Your task to perform on an android device: Open Chrome and go to settings Image 0: 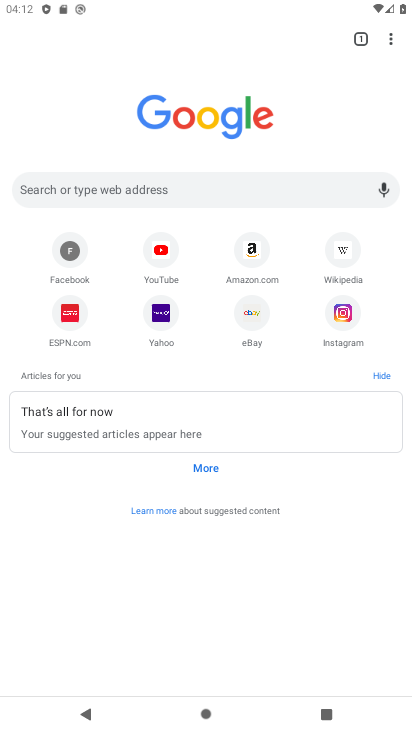
Step 0: click (391, 36)
Your task to perform on an android device: Open Chrome and go to settings Image 1: 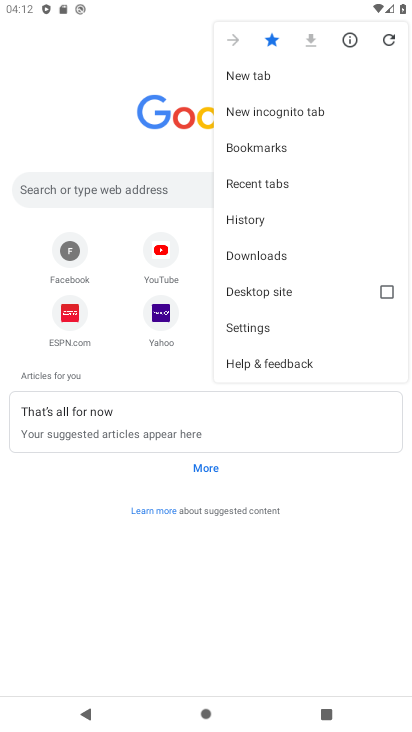
Step 1: click (258, 326)
Your task to perform on an android device: Open Chrome and go to settings Image 2: 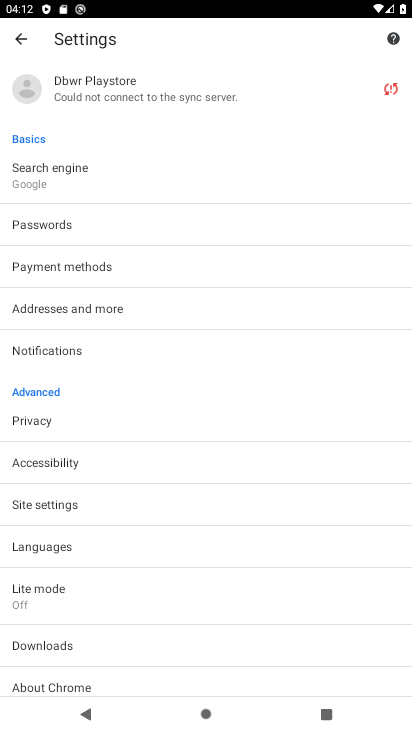
Step 2: task complete